Your task to perform on an android device: Go to privacy settings Image 0: 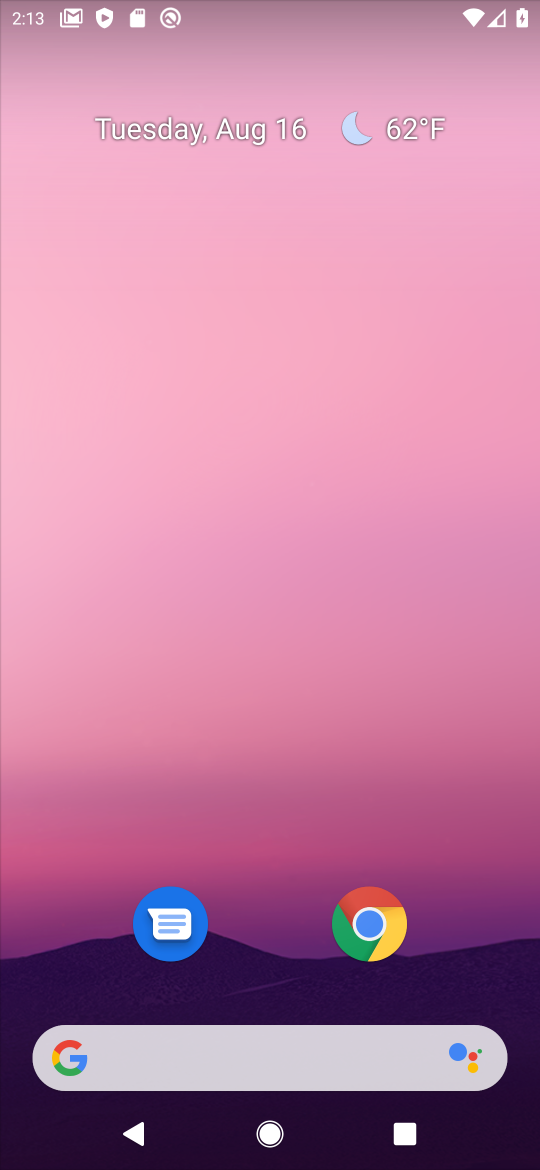
Step 0: drag from (513, 993) to (383, 396)
Your task to perform on an android device: Go to privacy settings Image 1: 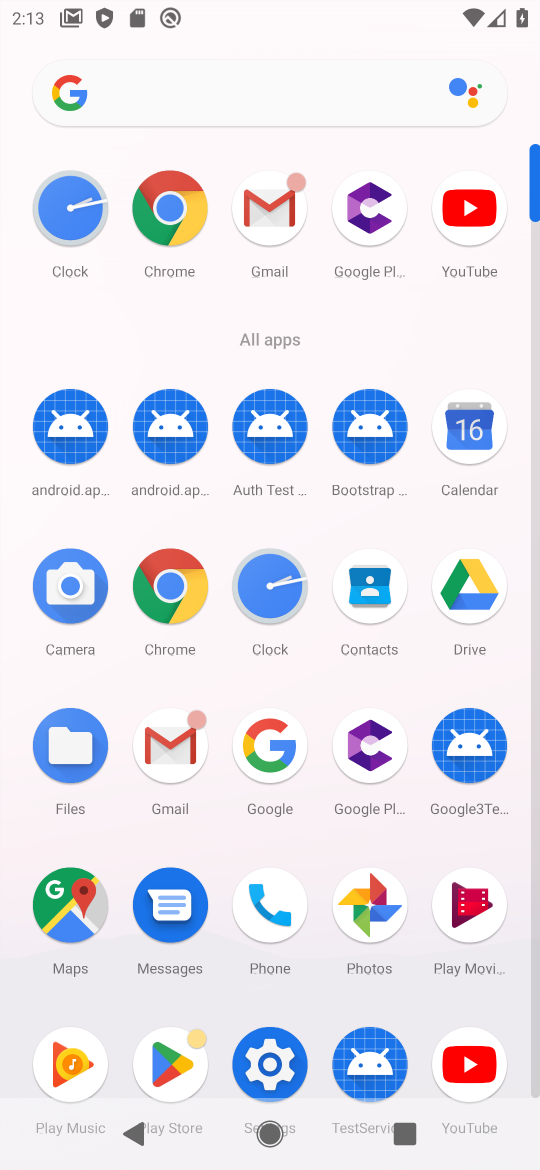
Step 1: click (269, 1065)
Your task to perform on an android device: Go to privacy settings Image 2: 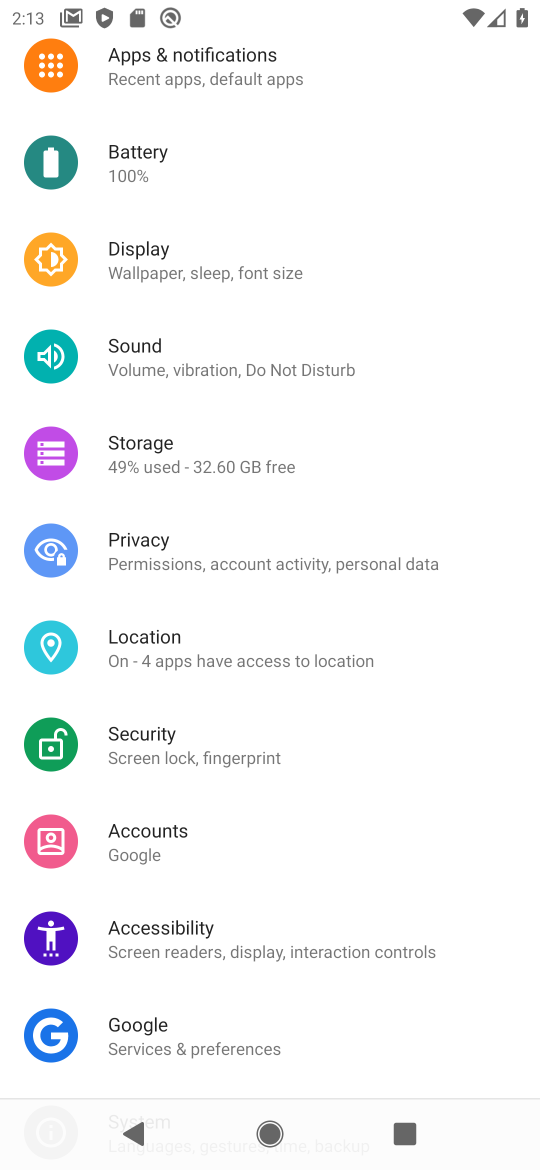
Step 2: click (140, 549)
Your task to perform on an android device: Go to privacy settings Image 3: 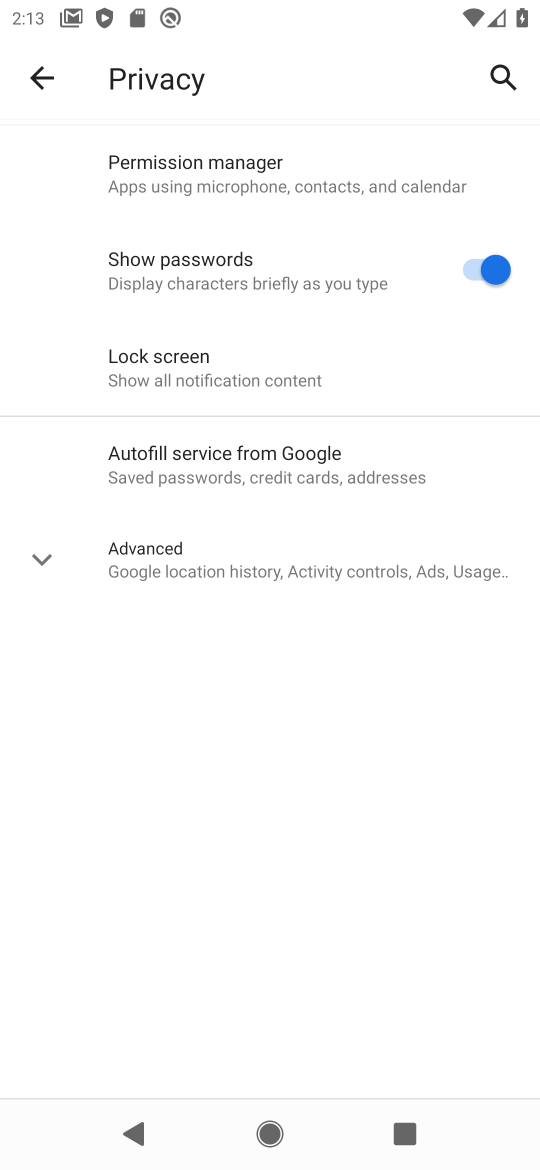
Step 3: click (34, 554)
Your task to perform on an android device: Go to privacy settings Image 4: 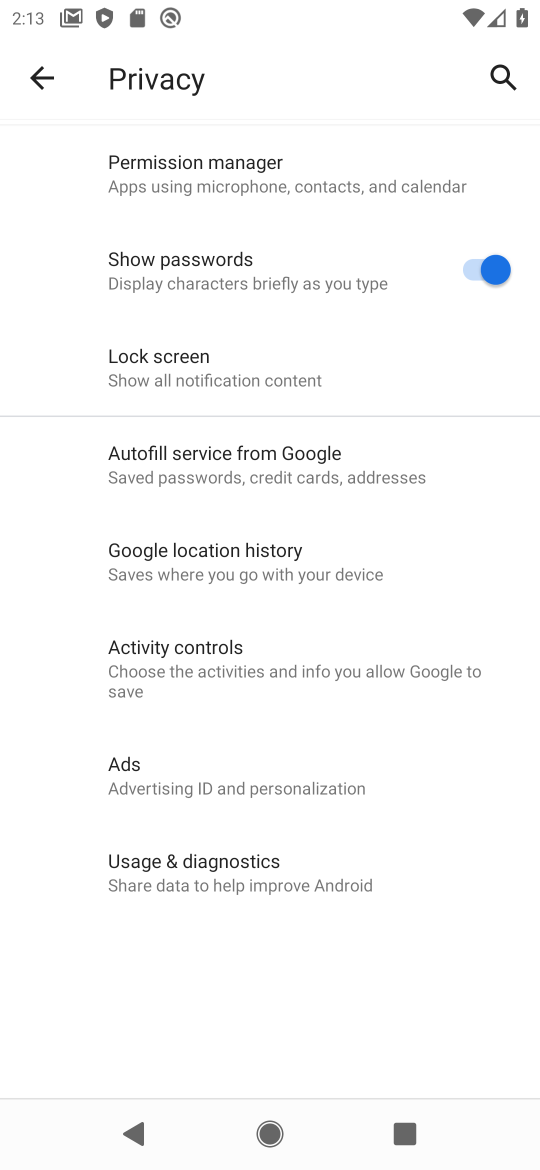
Step 4: task complete